Your task to perform on an android device: stop showing notifications on the lock screen Image 0: 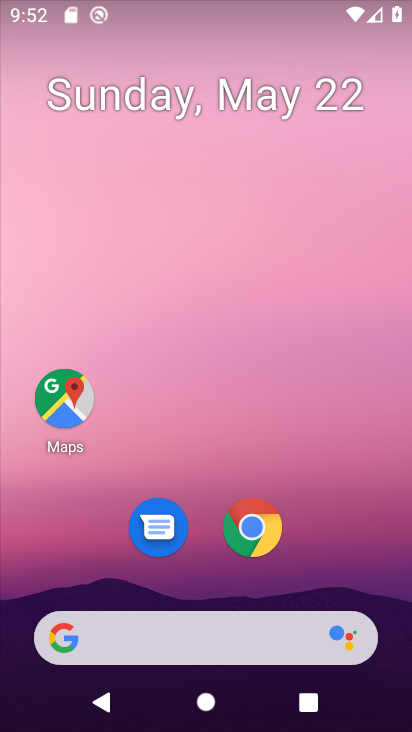
Step 0: drag from (251, 651) to (264, 143)
Your task to perform on an android device: stop showing notifications on the lock screen Image 1: 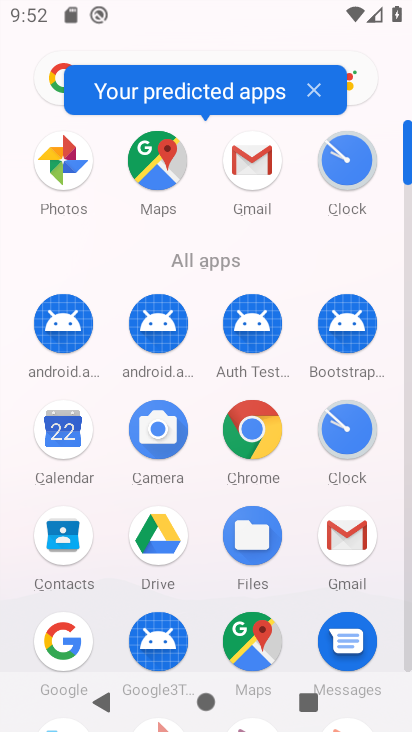
Step 1: drag from (220, 454) to (254, 164)
Your task to perform on an android device: stop showing notifications on the lock screen Image 2: 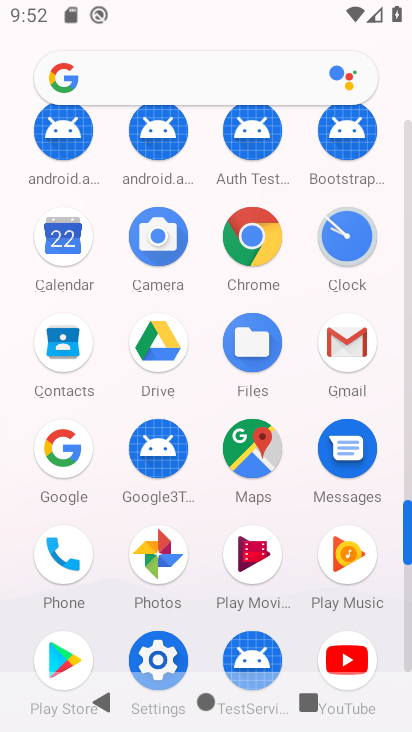
Step 2: drag from (236, 481) to (290, 124)
Your task to perform on an android device: stop showing notifications on the lock screen Image 3: 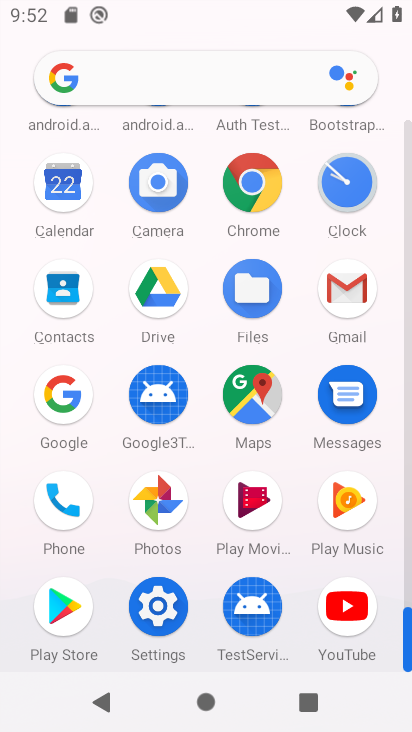
Step 3: click (169, 615)
Your task to perform on an android device: stop showing notifications on the lock screen Image 4: 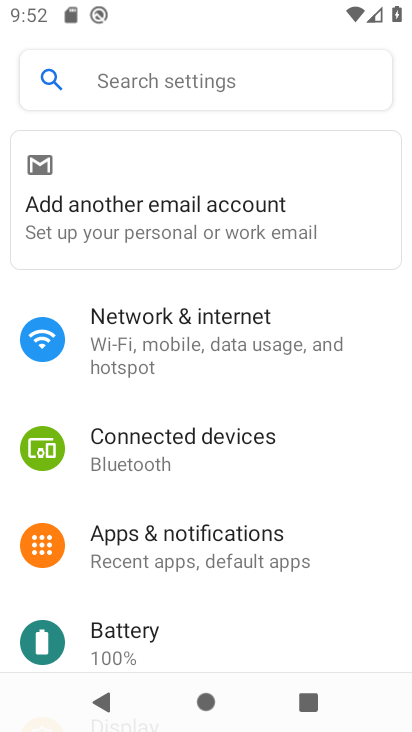
Step 4: click (184, 546)
Your task to perform on an android device: stop showing notifications on the lock screen Image 5: 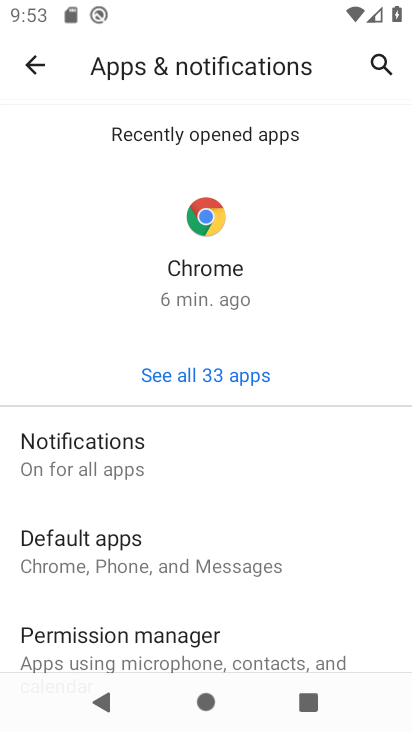
Step 5: drag from (225, 503) to (289, 298)
Your task to perform on an android device: stop showing notifications on the lock screen Image 6: 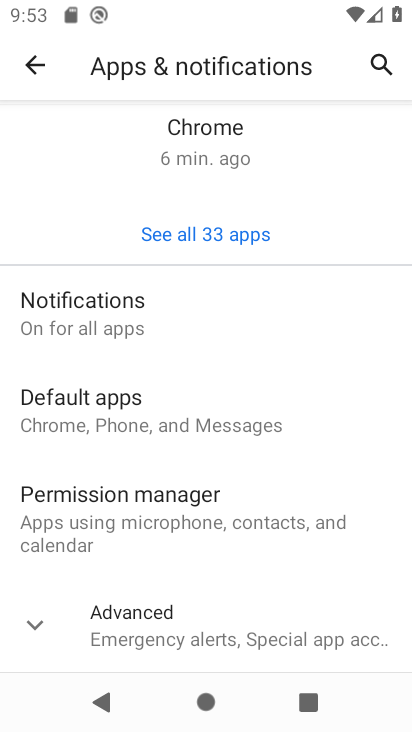
Step 6: click (201, 318)
Your task to perform on an android device: stop showing notifications on the lock screen Image 7: 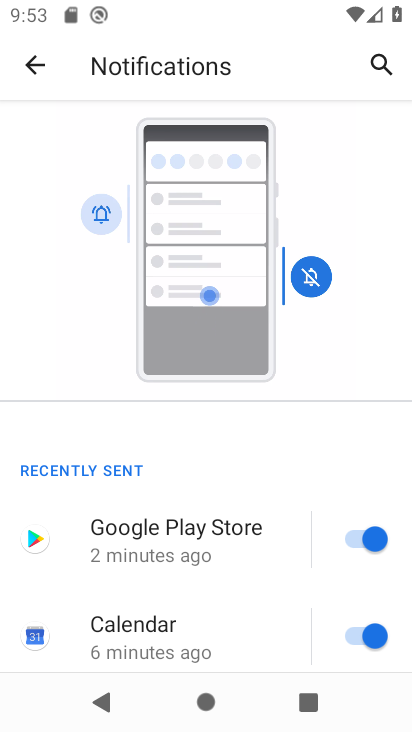
Step 7: drag from (203, 536) to (311, 178)
Your task to perform on an android device: stop showing notifications on the lock screen Image 8: 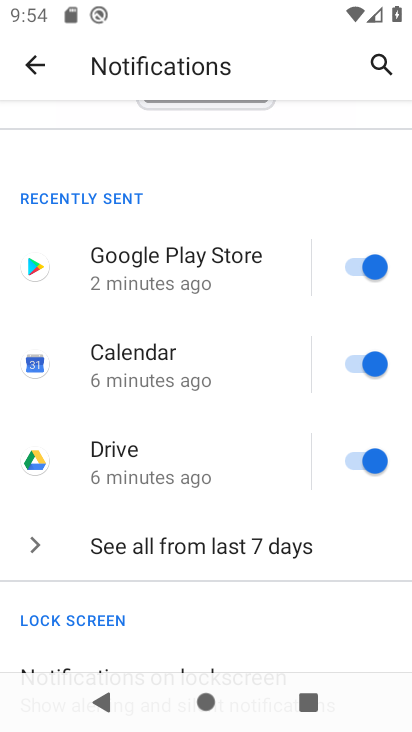
Step 8: drag from (228, 531) to (287, 210)
Your task to perform on an android device: stop showing notifications on the lock screen Image 9: 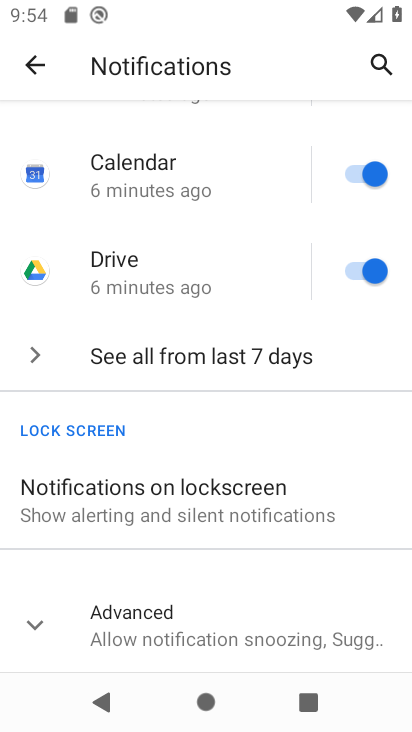
Step 9: click (232, 504)
Your task to perform on an android device: stop showing notifications on the lock screen Image 10: 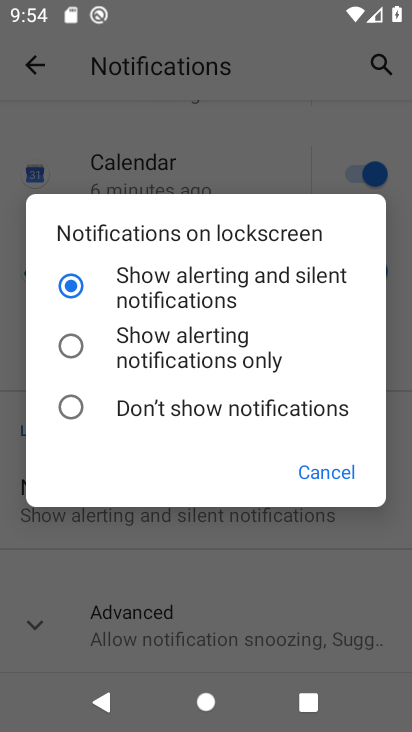
Step 10: click (185, 399)
Your task to perform on an android device: stop showing notifications on the lock screen Image 11: 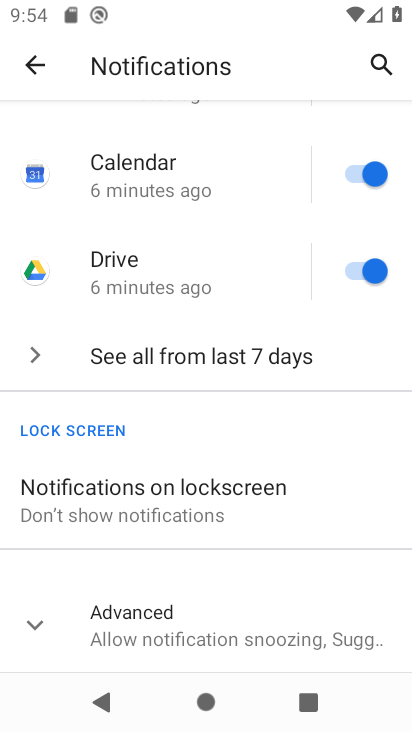
Step 11: task complete